Your task to perform on an android device: Go to Android settings Image 0: 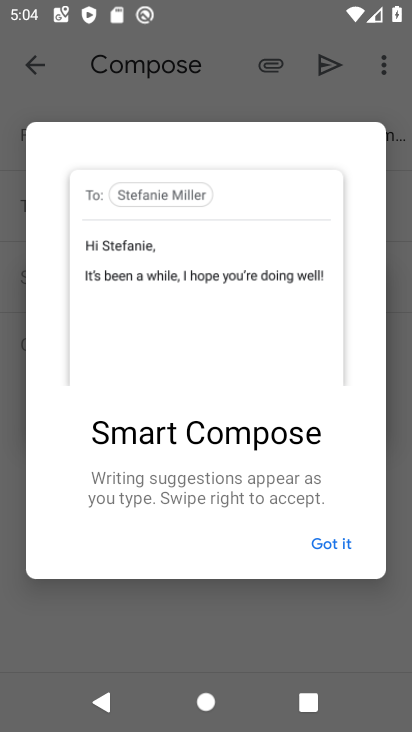
Step 0: press home button
Your task to perform on an android device: Go to Android settings Image 1: 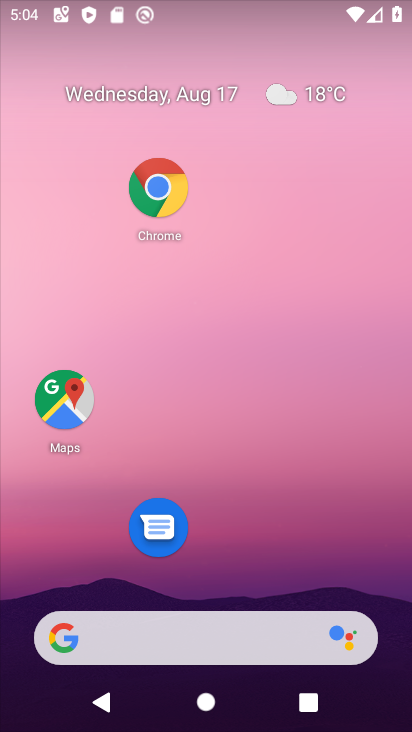
Step 1: drag from (227, 572) to (231, 97)
Your task to perform on an android device: Go to Android settings Image 2: 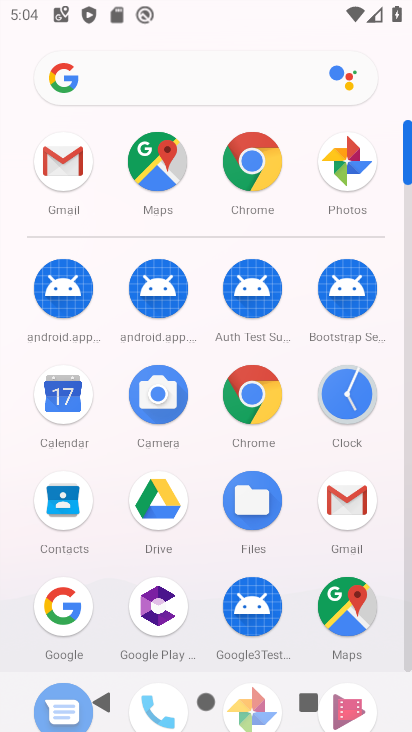
Step 2: drag from (192, 557) to (237, 88)
Your task to perform on an android device: Go to Android settings Image 3: 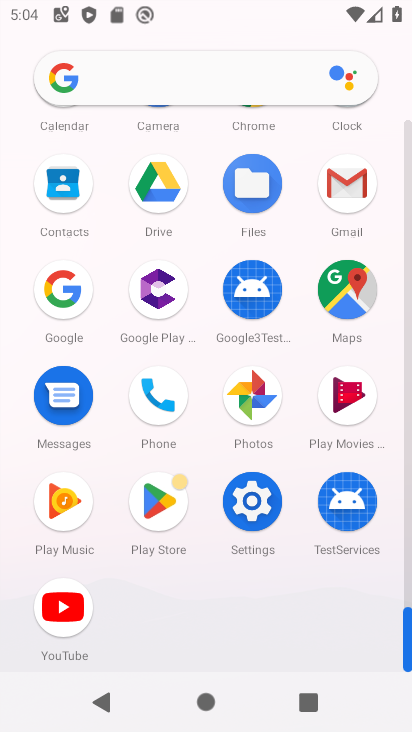
Step 3: click (260, 505)
Your task to perform on an android device: Go to Android settings Image 4: 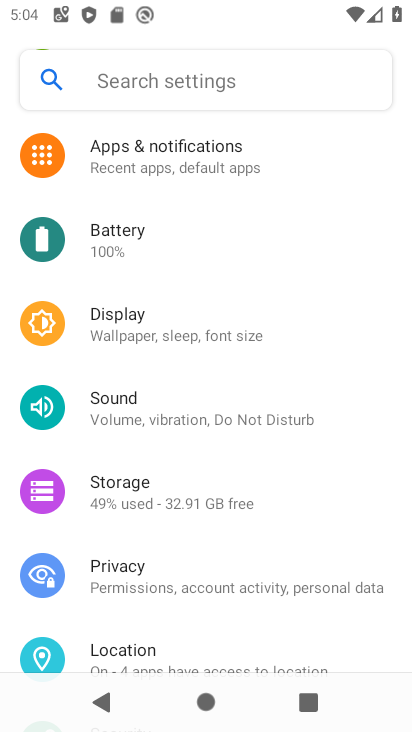
Step 4: task complete